Your task to perform on an android device: install app "Microsoft Excel" Image 0: 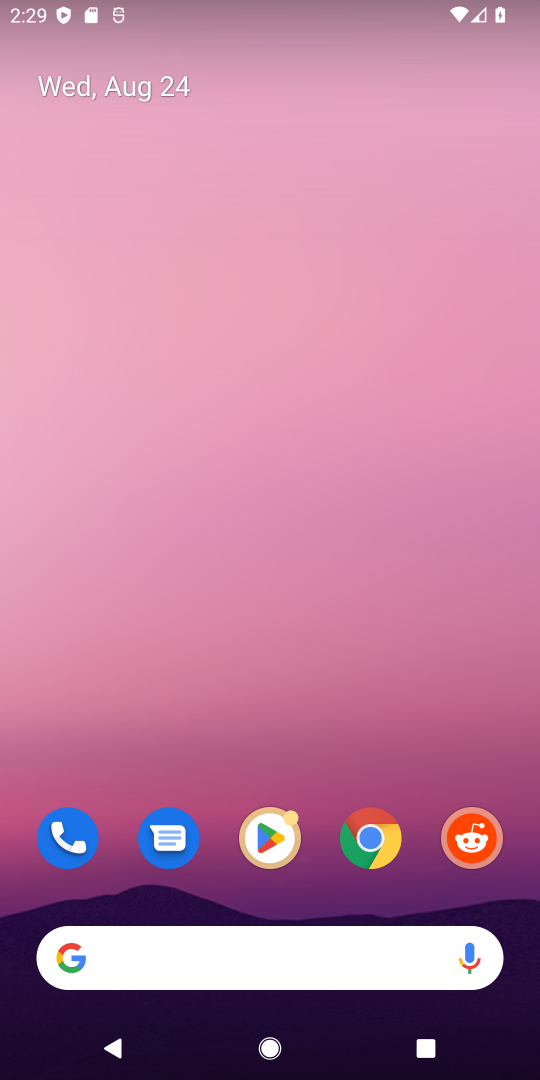
Step 0: press home button
Your task to perform on an android device: install app "Microsoft Excel" Image 1: 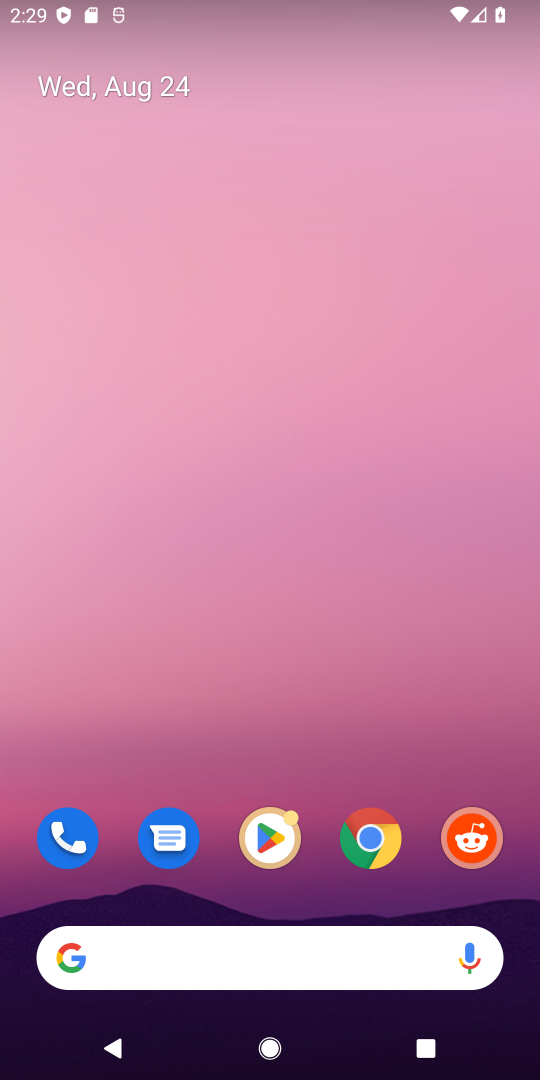
Step 1: drag from (516, 760) to (477, 171)
Your task to perform on an android device: install app "Microsoft Excel" Image 2: 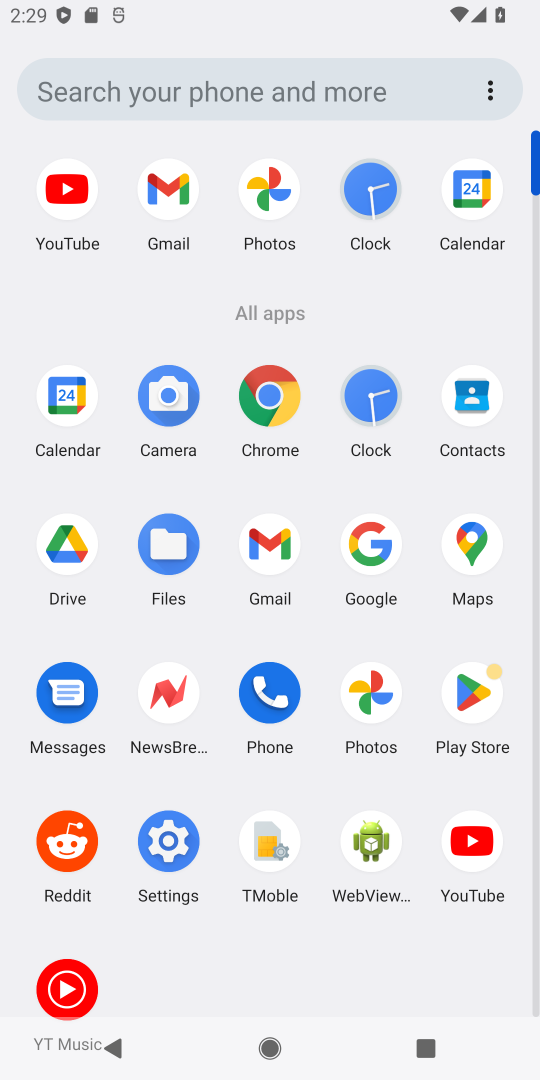
Step 2: click (475, 699)
Your task to perform on an android device: install app "Microsoft Excel" Image 3: 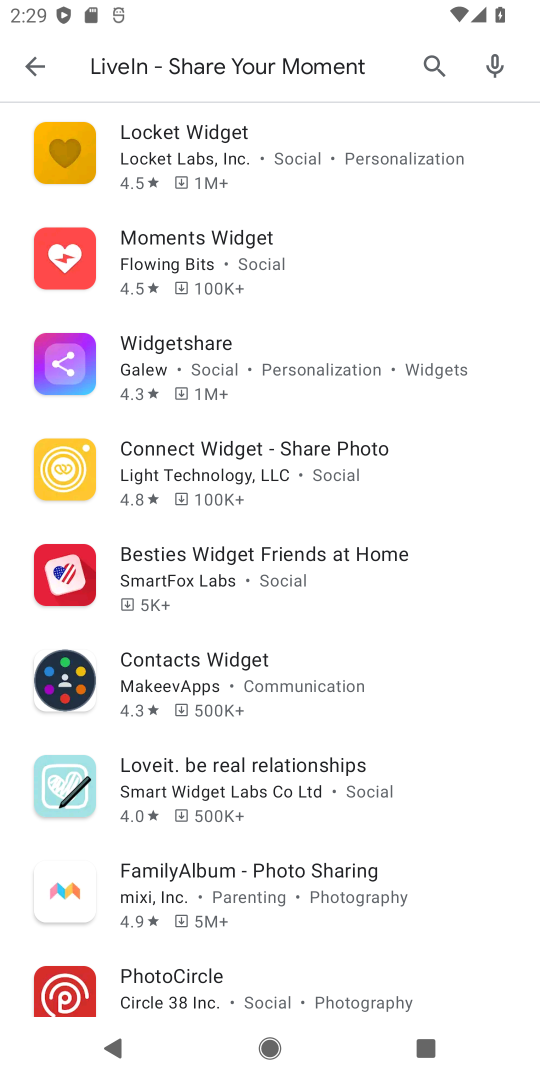
Step 3: press back button
Your task to perform on an android device: install app "Microsoft Excel" Image 4: 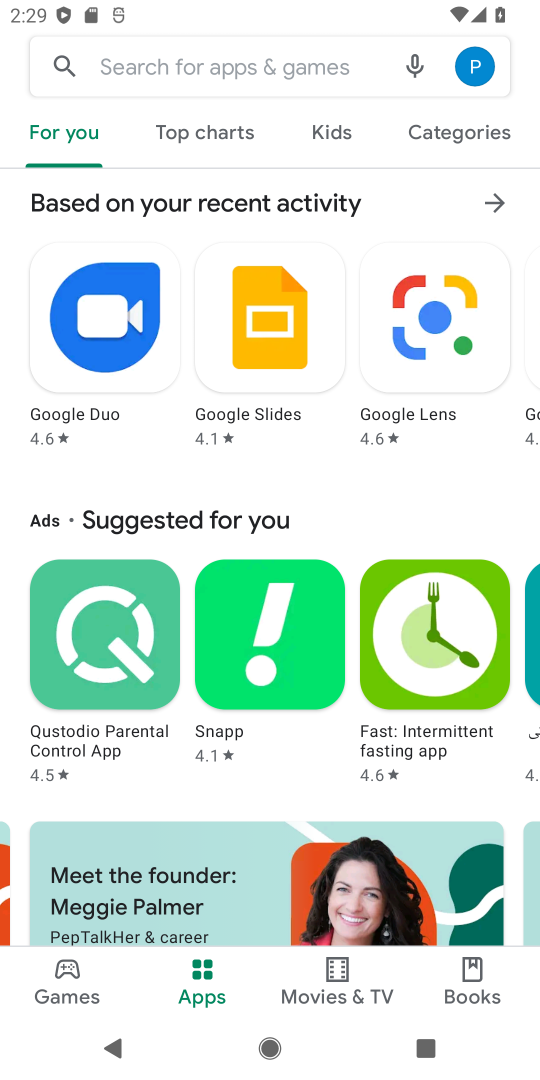
Step 4: click (311, 53)
Your task to perform on an android device: install app "Microsoft Excel" Image 5: 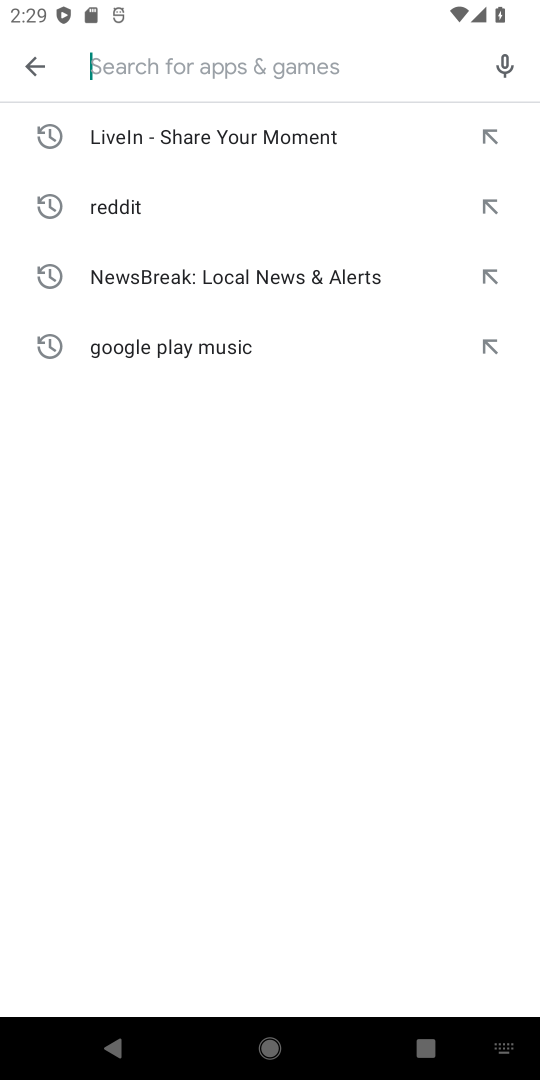
Step 5: type "Microsoft Excel"
Your task to perform on an android device: install app "Microsoft Excel" Image 6: 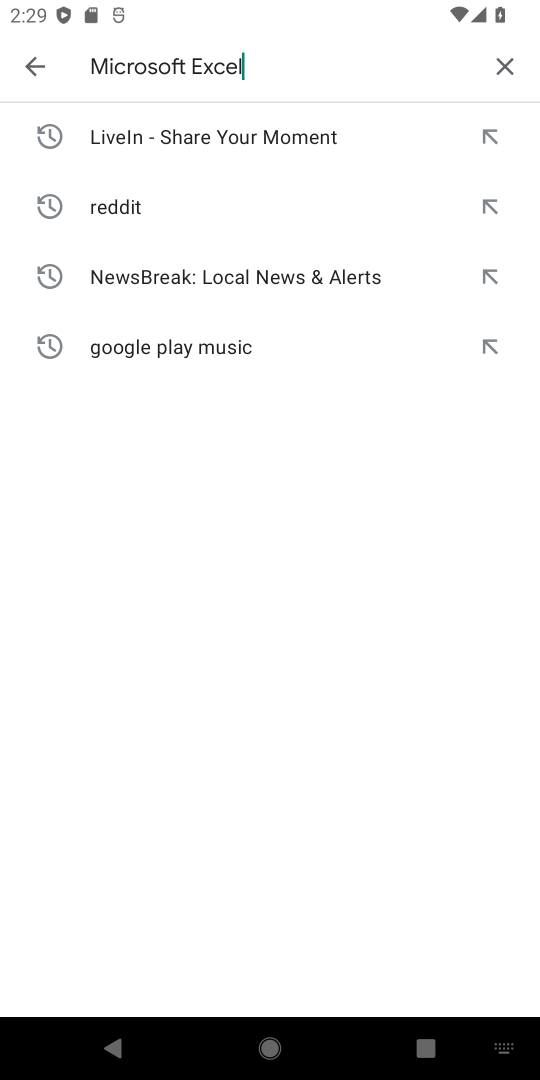
Step 6: press enter
Your task to perform on an android device: install app "Microsoft Excel" Image 7: 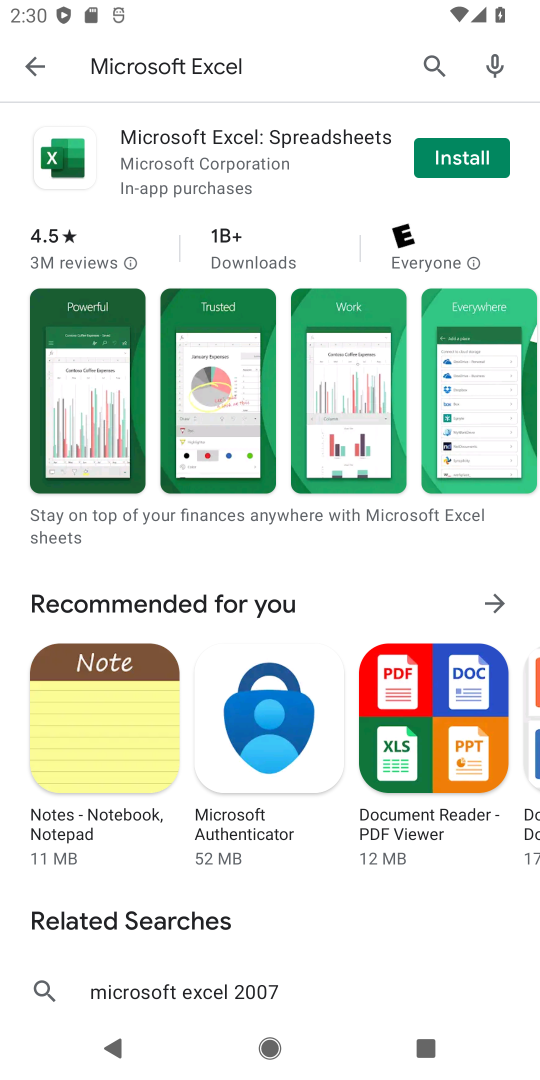
Step 7: click (470, 148)
Your task to perform on an android device: install app "Microsoft Excel" Image 8: 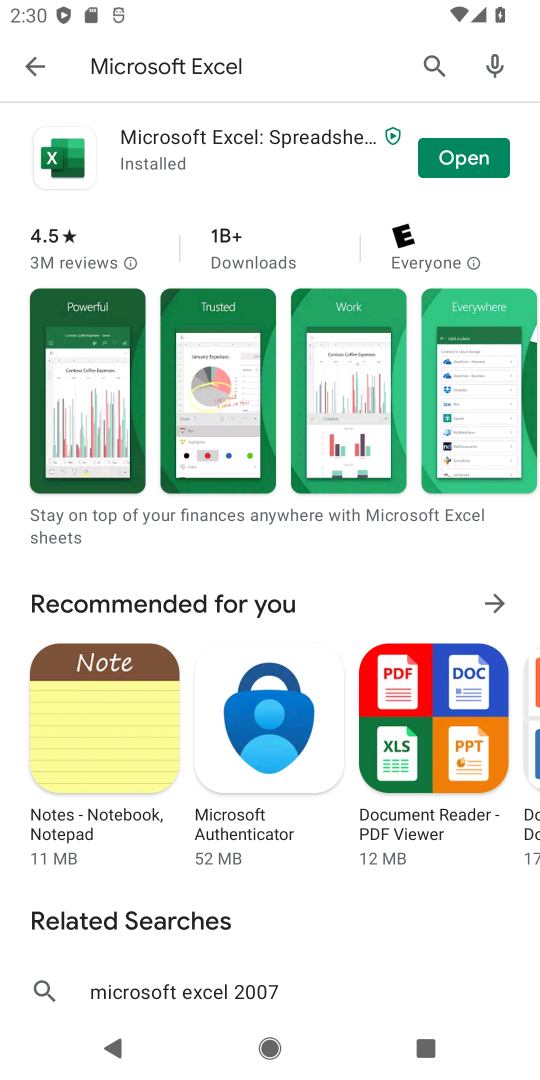
Step 8: task complete